Your task to perform on an android device: Open ESPN.com Image 0: 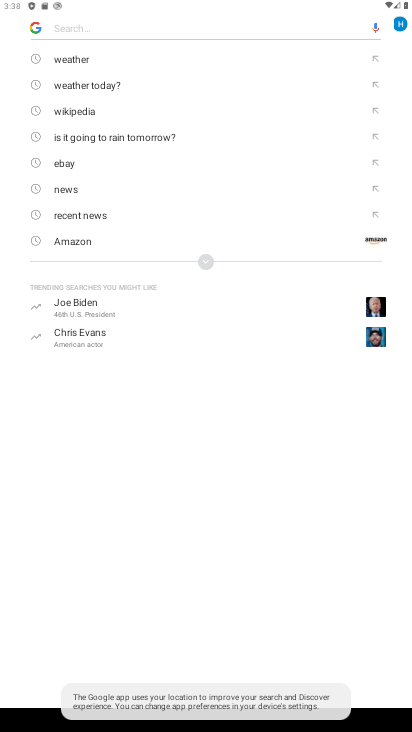
Step 0: press home button
Your task to perform on an android device: Open ESPN.com Image 1: 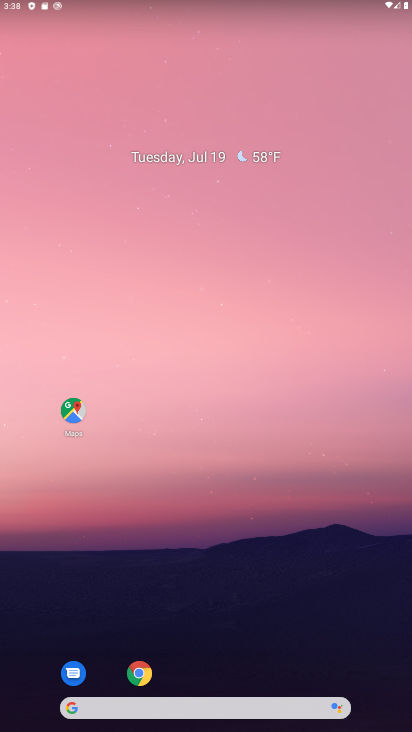
Step 1: click (141, 666)
Your task to perform on an android device: Open ESPN.com Image 2: 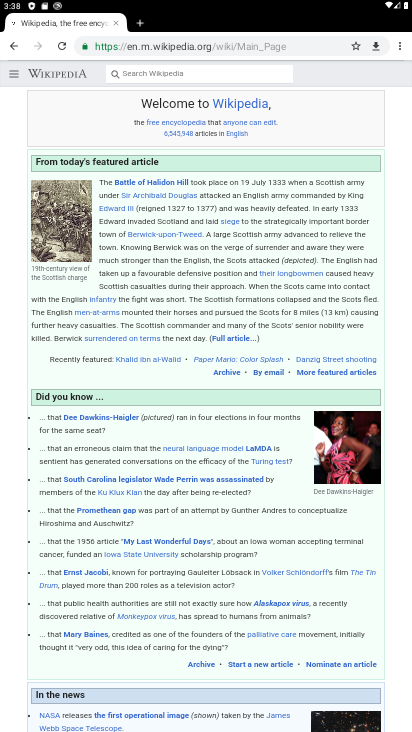
Step 2: click (230, 45)
Your task to perform on an android device: Open ESPN.com Image 3: 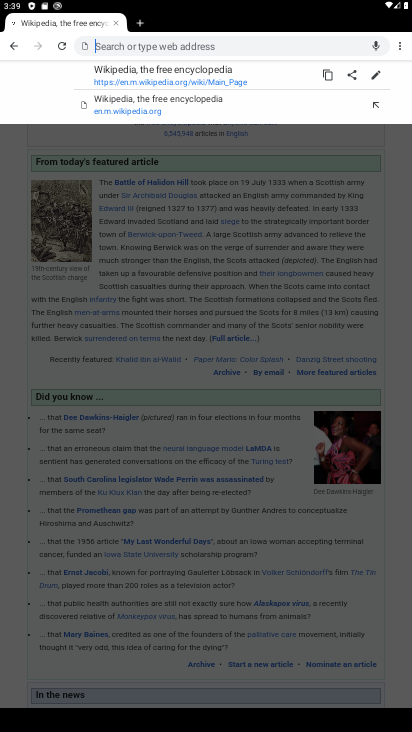
Step 3: type "espn.com"
Your task to perform on an android device: Open ESPN.com Image 4: 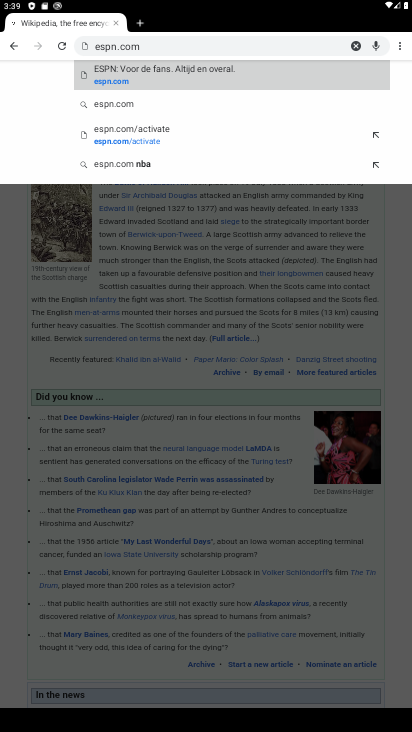
Step 4: click (161, 73)
Your task to perform on an android device: Open ESPN.com Image 5: 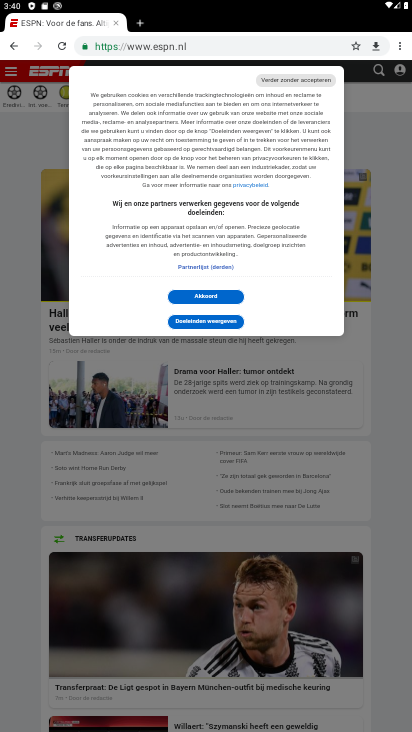
Step 5: task complete